Your task to perform on an android device: Open Yahoo.com Image 0: 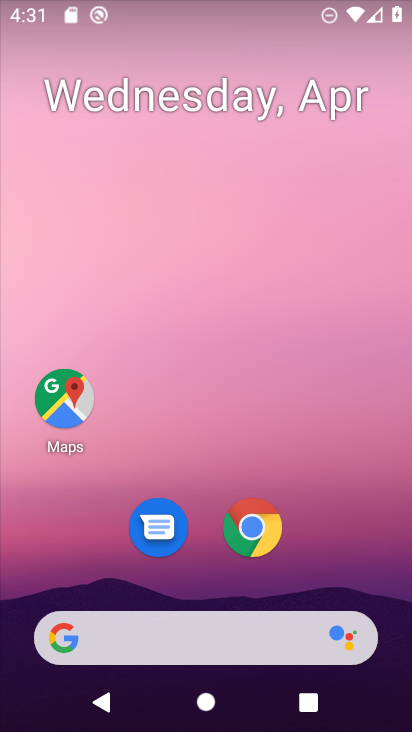
Step 0: click (249, 525)
Your task to perform on an android device: Open Yahoo.com Image 1: 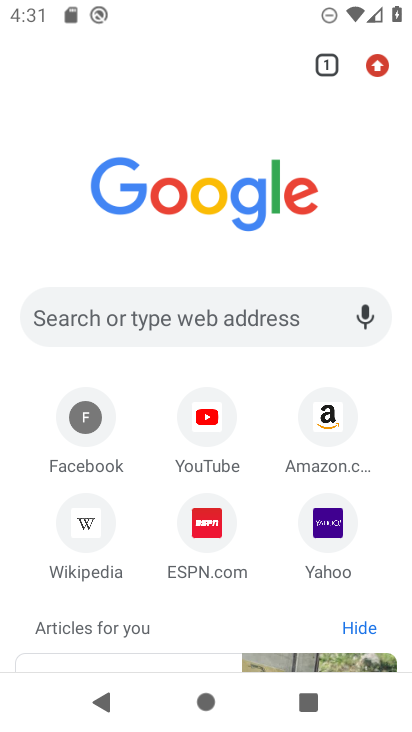
Step 1: click (331, 548)
Your task to perform on an android device: Open Yahoo.com Image 2: 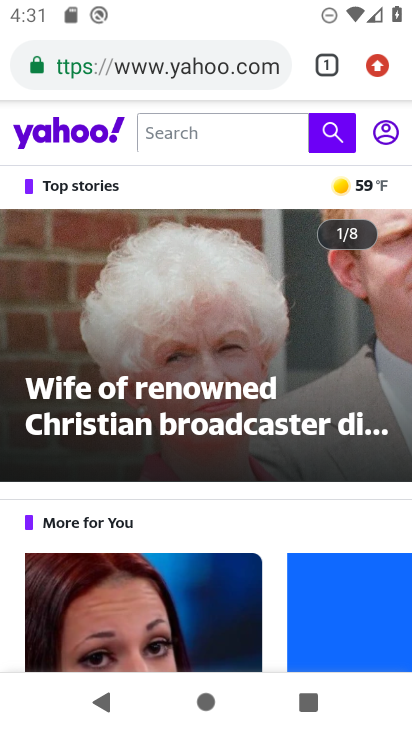
Step 2: task complete